Your task to perform on an android device: search for starred emails in the gmail app Image 0: 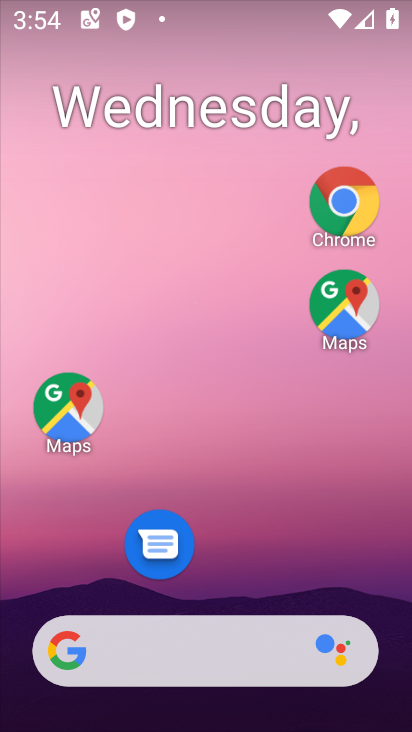
Step 0: drag from (274, 508) to (275, 95)
Your task to perform on an android device: search for starred emails in the gmail app Image 1: 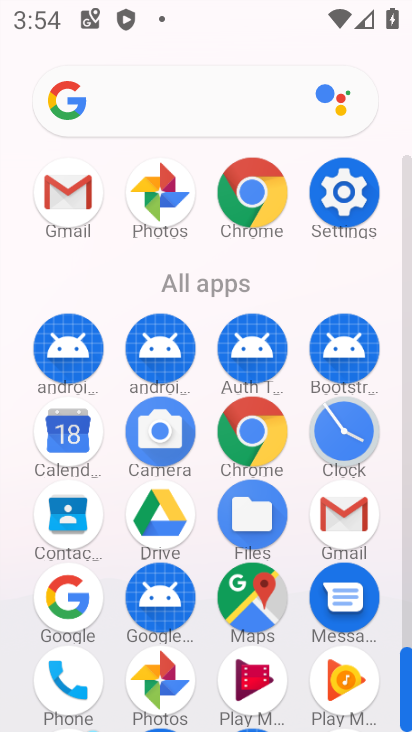
Step 1: click (80, 190)
Your task to perform on an android device: search for starred emails in the gmail app Image 2: 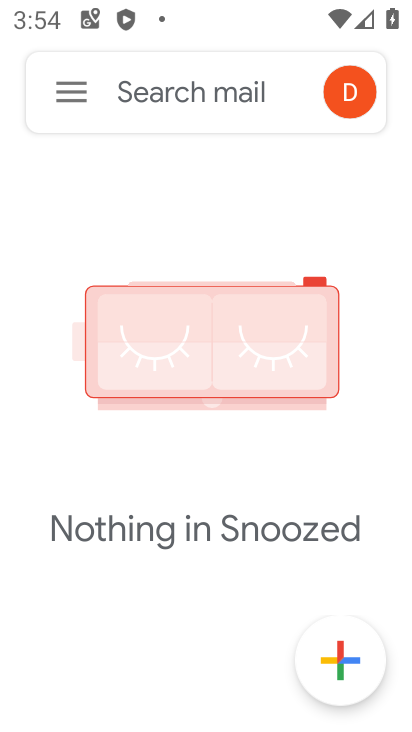
Step 2: click (66, 94)
Your task to perform on an android device: search for starred emails in the gmail app Image 3: 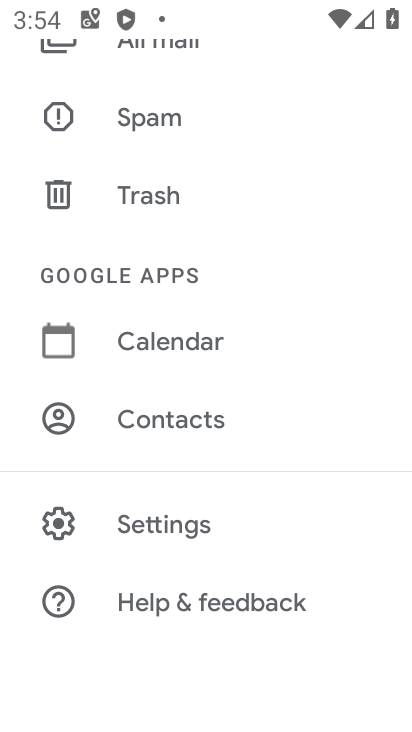
Step 3: drag from (164, 169) to (138, 482)
Your task to perform on an android device: search for starred emails in the gmail app Image 4: 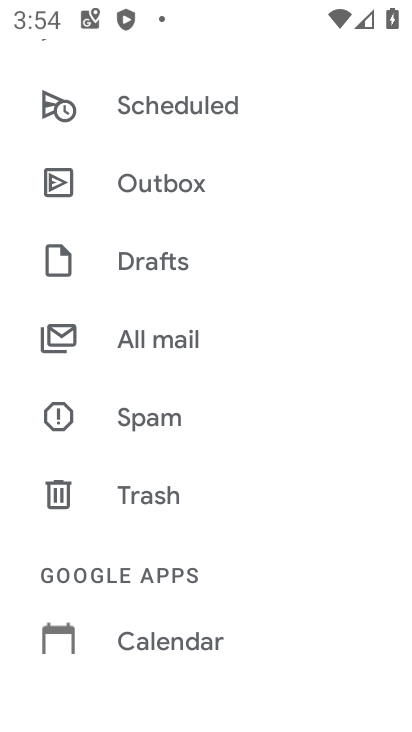
Step 4: drag from (181, 220) to (139, 458)
Your task to perform on an android device: search for starred emails in the gmail app Image 5: 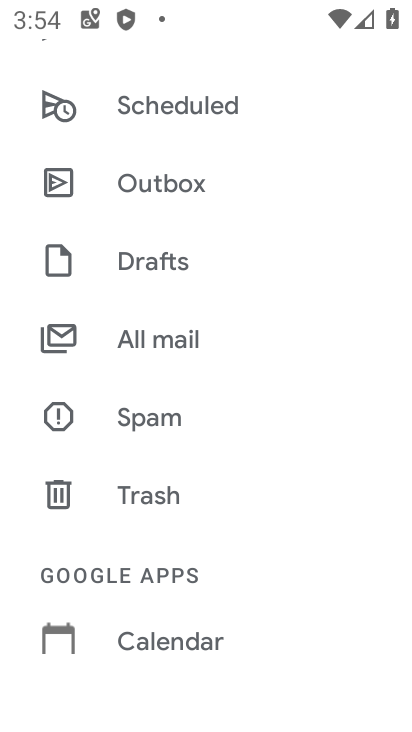
Step 5: drag from (214, 322) to (207, 540)
Your task to perform on an android device: search for starred emails in the gmail app Image 6: 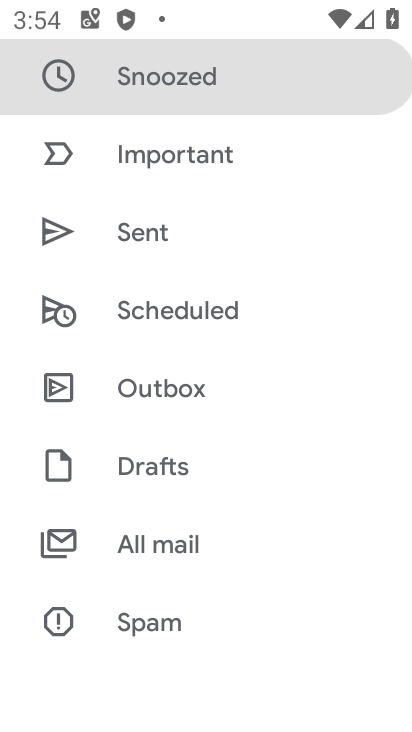
Step 6: drag from (181, 165) to (179, 311)
Your task to perform on an android device: search for starred emails in the gmail app Image 7: 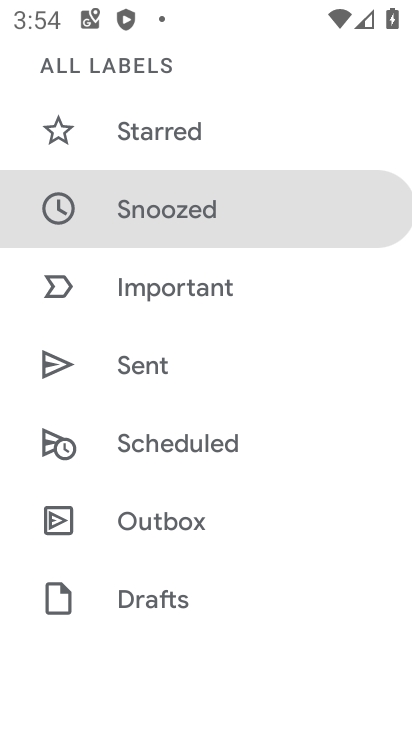
Step 7: click (188, 133)
Your task to perform on an android device: search for starred emails in the gmail app Image 8: 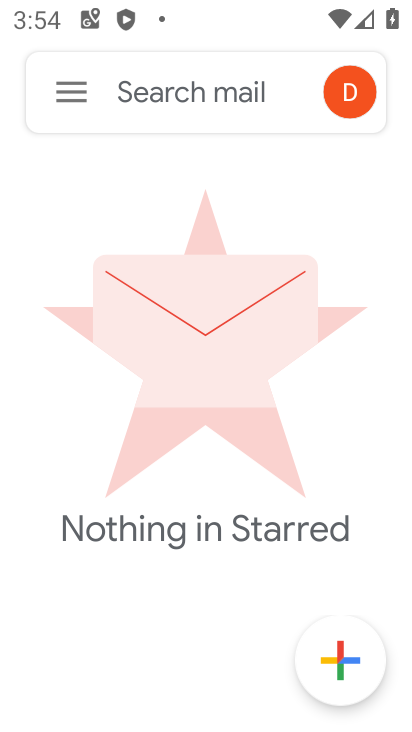
Step 8: task complete